Your task to perform on an android device: Go to sound settings Image 0: 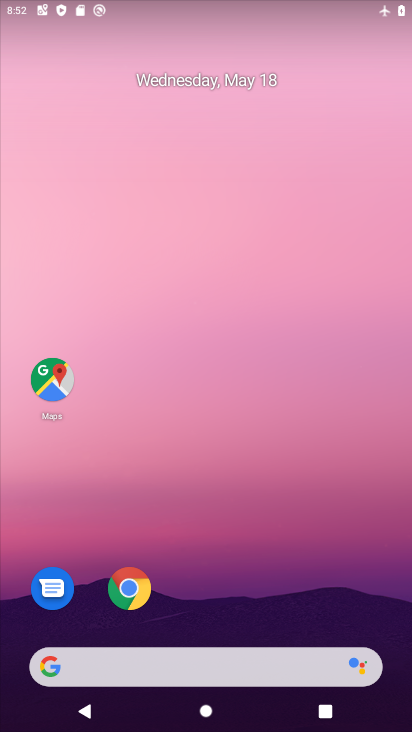
Step 0: drag from (300, 625) to (293, 82)
Your task to perform on an android device: Go to sound settings Image 1: 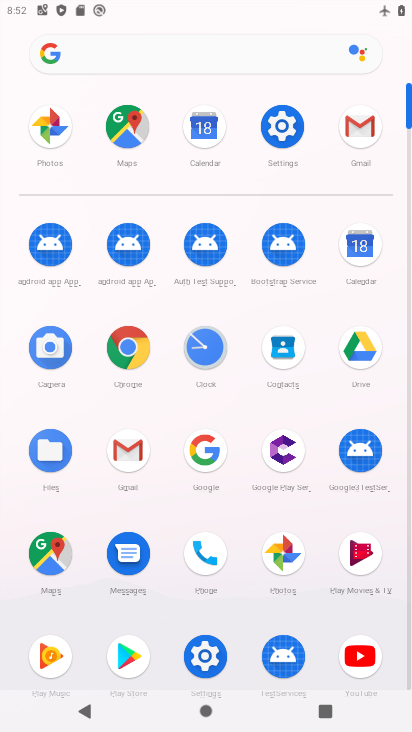
Step 1: click (285, 132)
Your task to perform on an android device: Go to sound settings Image 2: 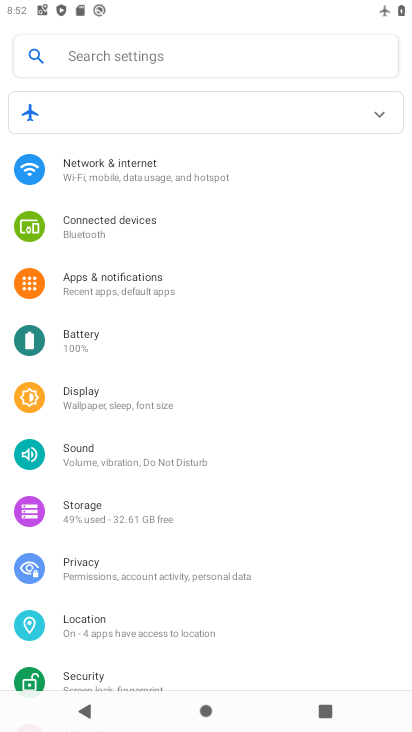
Step 2: click (82, 459)
Your task to perform on an android device: Go to sound settings Image 3: 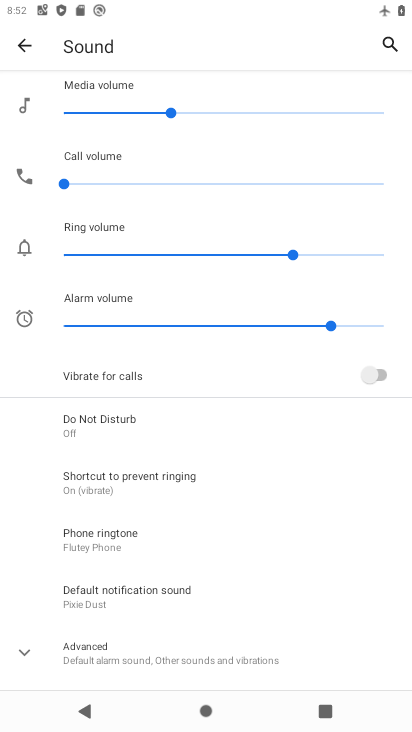
Step 3: task complete